Your task to perform on an android device: add a contact Image 0: 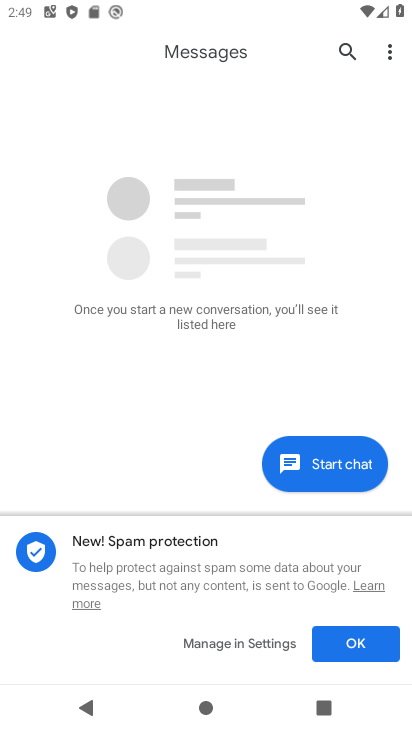
Step 0: press home button
Your task to perform on an android device: add a contact Image 1: 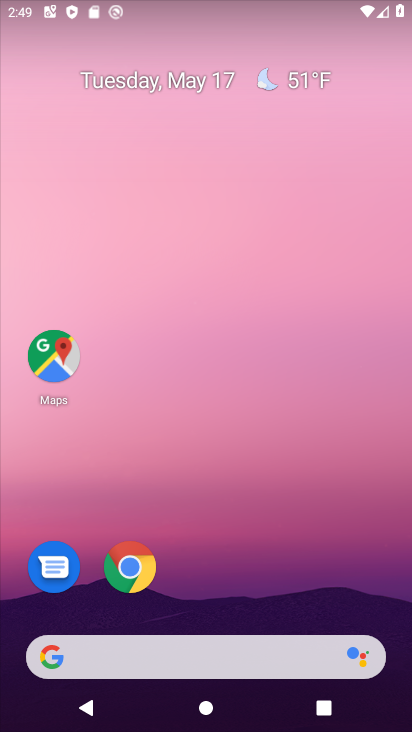
Step 1: drag from (198, 647) to (228, 396)
Your task to perform on an android device: add a contact Image 2: 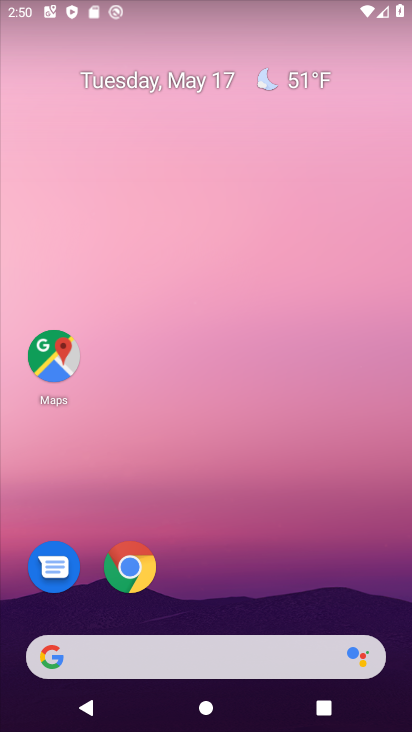
Step 2: drag from (196, 651) to (220, 400)
Your task to perform on an android device: add a contact Image 3: 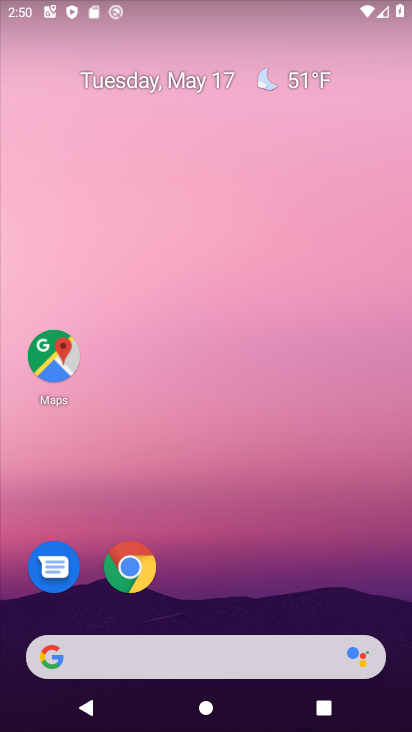
Step 3: drag from (236, 644) to (252, 267)
Your task to perform on an android device: add a contact Image 4: 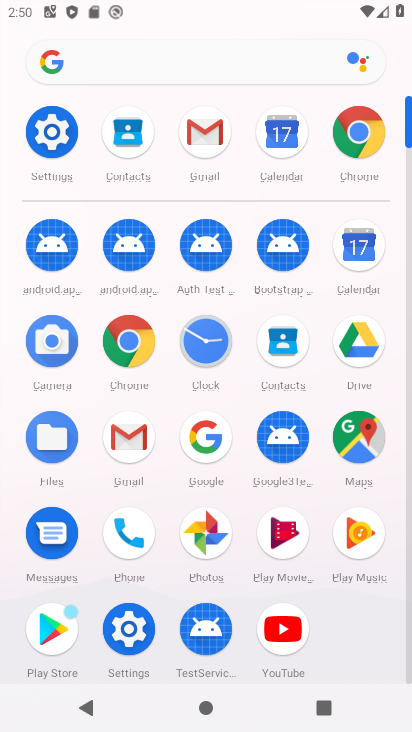
Step 4: click (292, 337)
Your task to perform on an android device: add a contact Image 5: 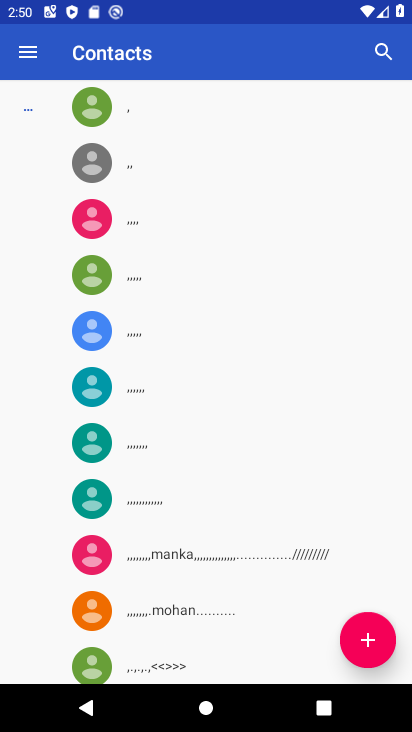
Step 5: click (375, 647)
Your task to perform on an android device: add a contact Image 6: 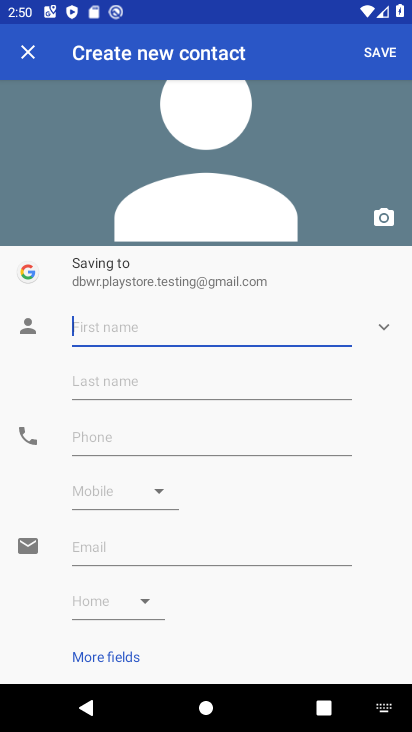
Step 6: type "nbnbnb"
Your task to perform on an android device: add a contact Image 7: 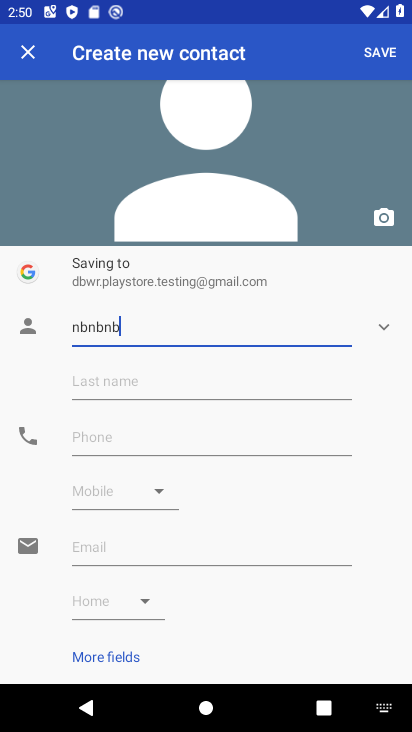
Step 7: click (170, 433)
Your task to perform on an android device: add a contact Image 8: 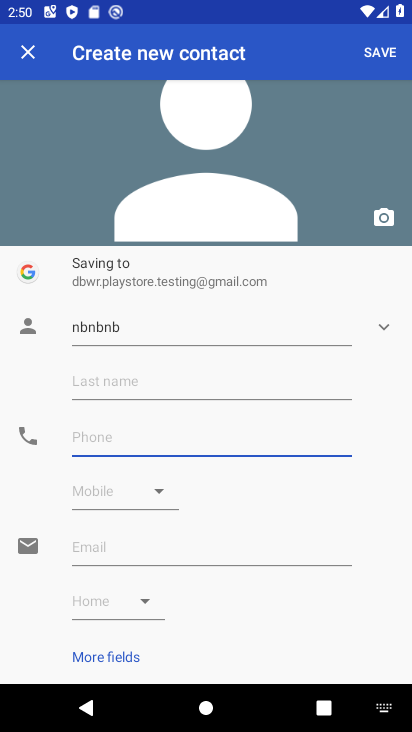
Step 8: type "098767876"
Your task to perform on an android device: add a contact Image 9: 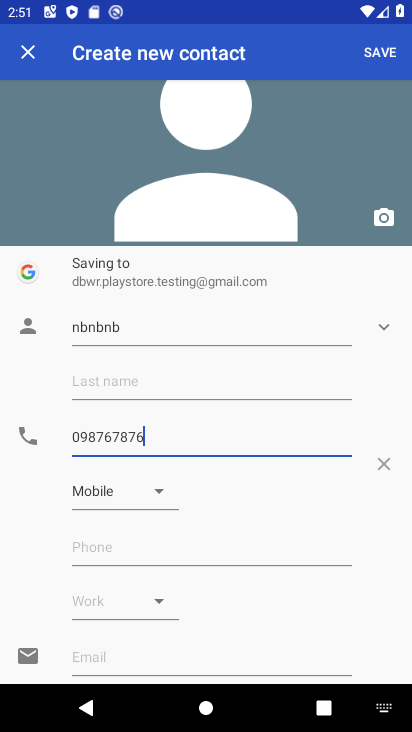
Step 9: click (387, 58)
Your task to perform on an android device: add a contact Image 10: 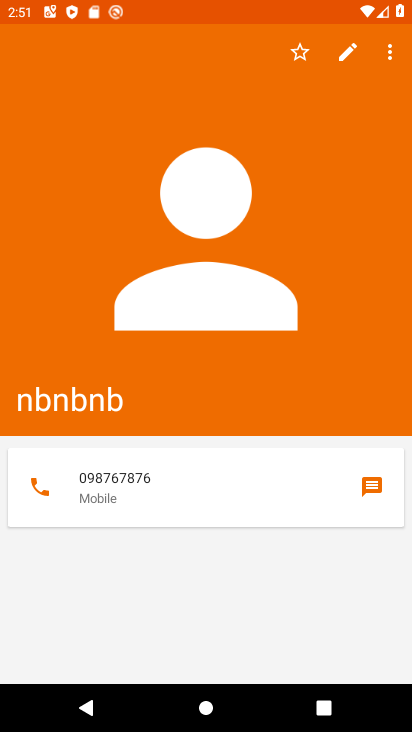
Step 10: task complete